Your task to perform on an android device: Go to sound settings Image 0: 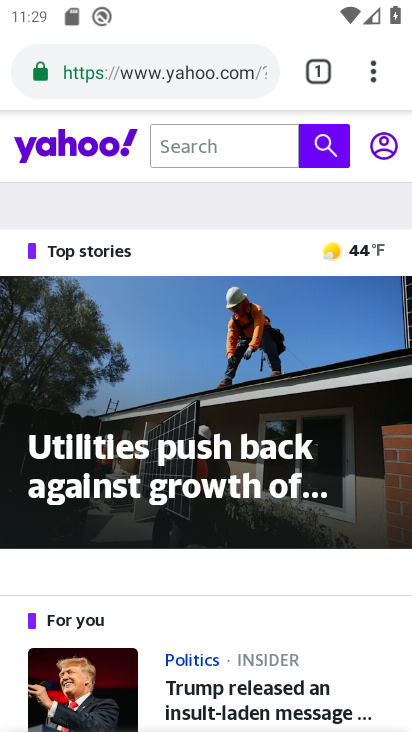
Step 0: press home button
Your task to perform on an android device: Go to sound settings Image 1: 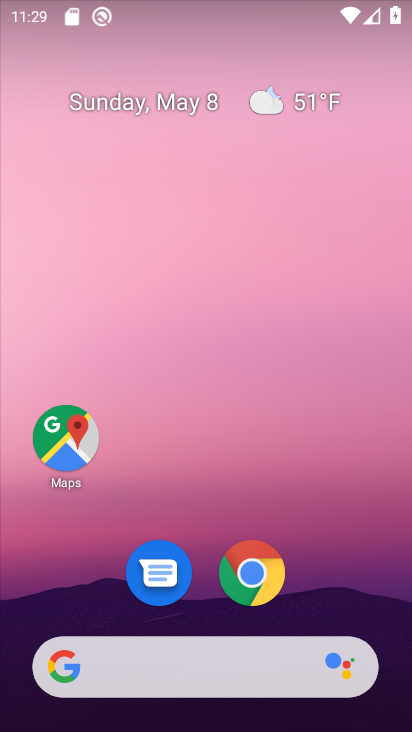
Step 1: drag from (230, 644) to (230, 327)
Your task to perform on an android device: Go to sound settings Image 2: 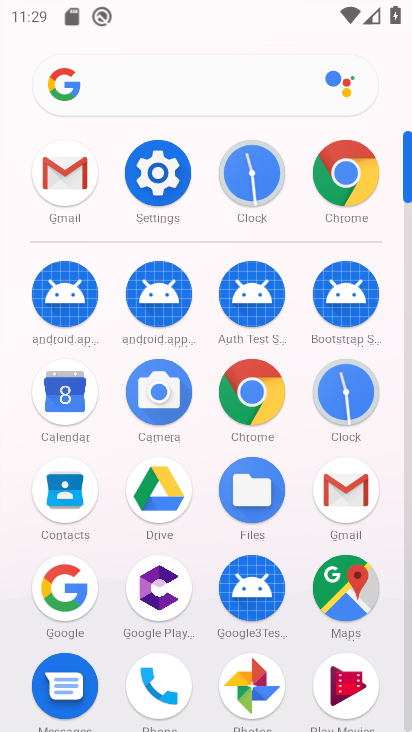
Step 2: click (169, 176)
Your task to perform on an android device: Go to sound settings Image 3: 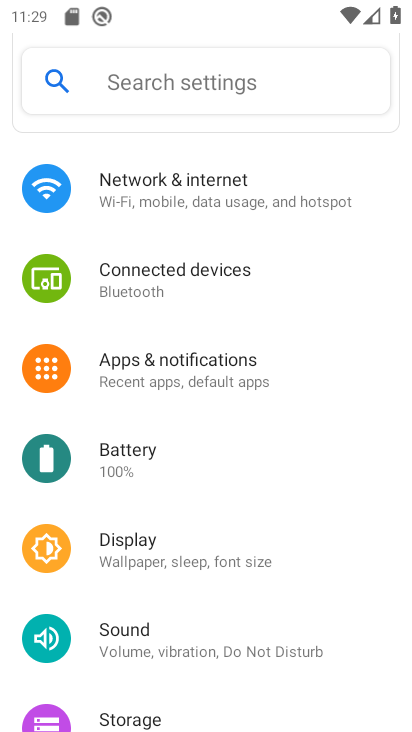
Step 3: click (147, 639)
Your task to perform on an android device: Go to sound settings Image 4: 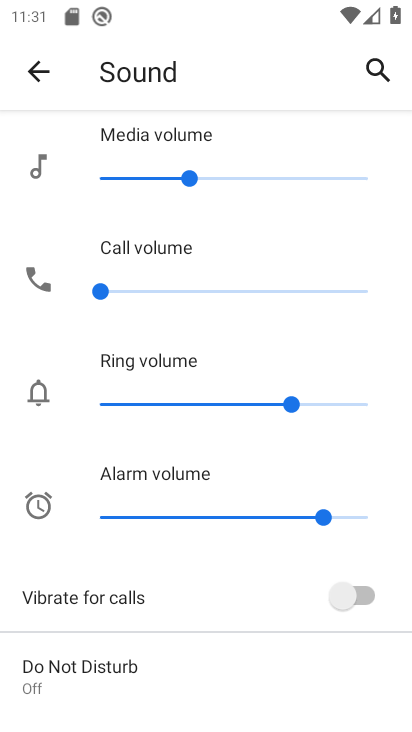
Step 4: task complete